Your task to perform on an android device: Show me the alarms in the clock app Image 0: 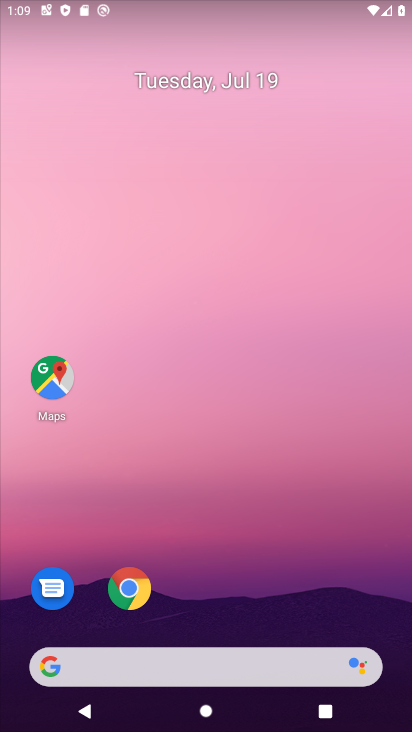
Step 0: drag from (19, 683) to (297, 8)
Your task to perform on an android device: Show me the alarms in the clock app Image 1: 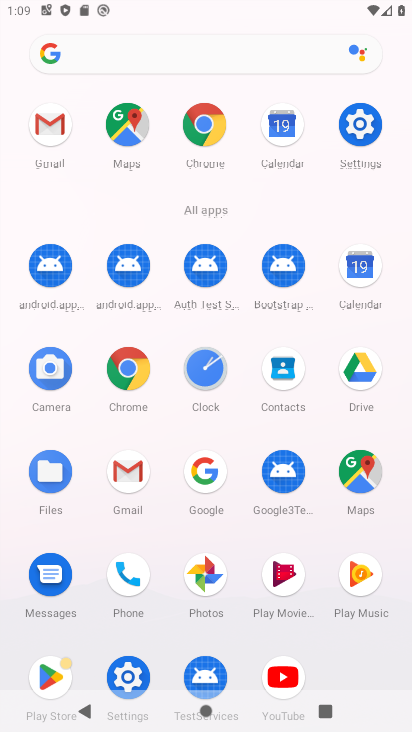
Step 1: click (207, 383)
Your task to perform on an android device: Show me the alarms in the clock app Image 2: 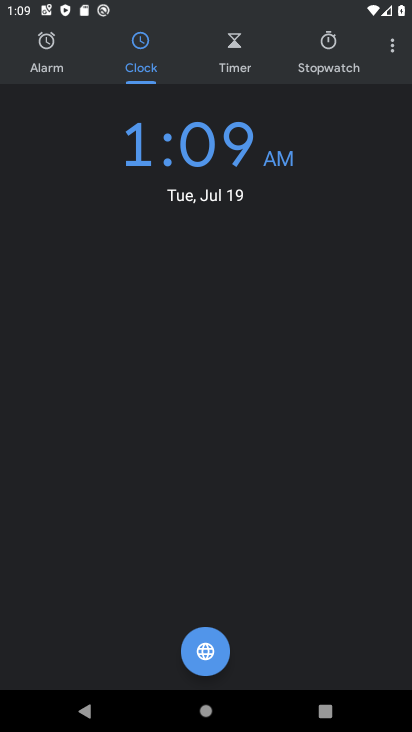
Step 2: click (44, 57)
Your task to perform on an android device: Show me the alarms in the clock app Image 3: 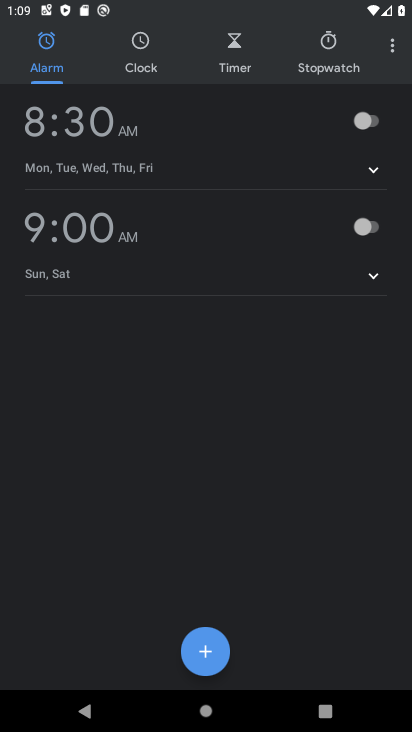
Step 3: task complete